Your task to perform on an android device: Clear the shopping cart on costco. Add jbl charge 4 to the cart on costco Image 0: 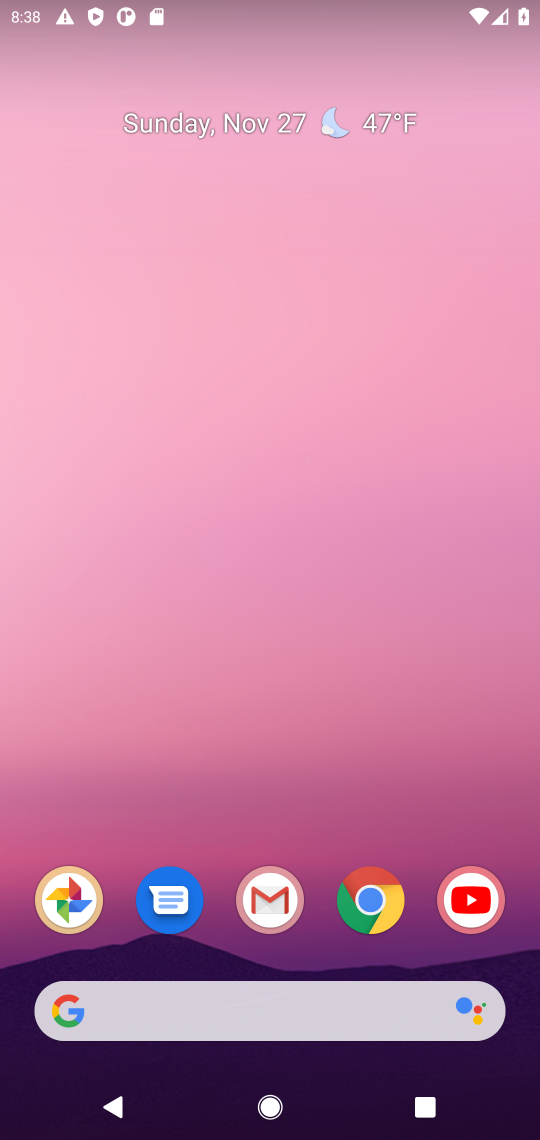
Step 0: click (373, 901)
Your task to perform on an android device: Clear the shopping cart on costco. Add jbl charge 4 to the cart on costco Image 1: 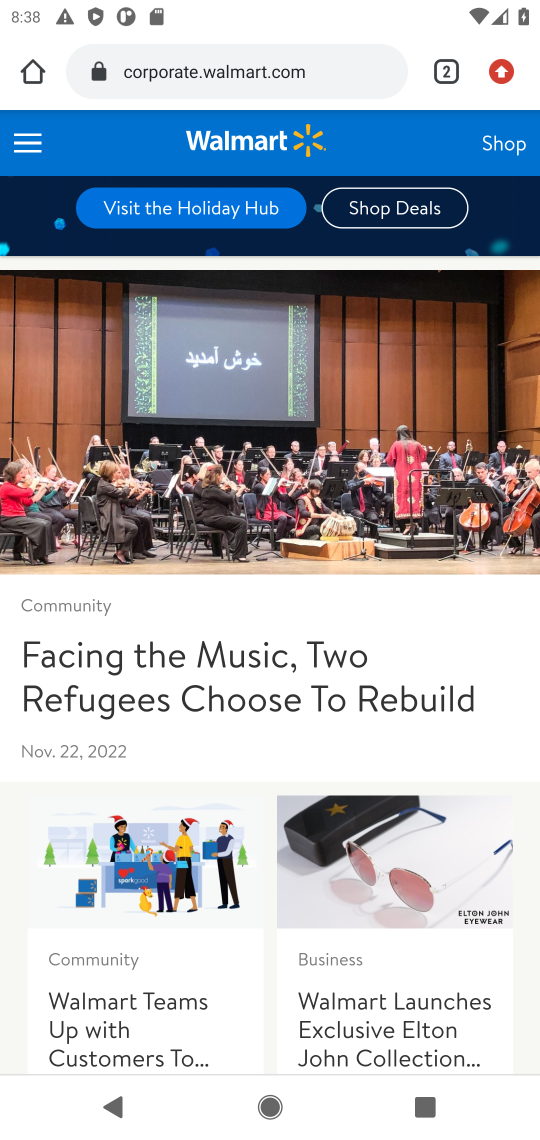
Step 1: click (198, 76)
Your task to perform on an android device: Clear the shopping cart on costco. Add jbl charge 4 to the cart on costco Image 2: 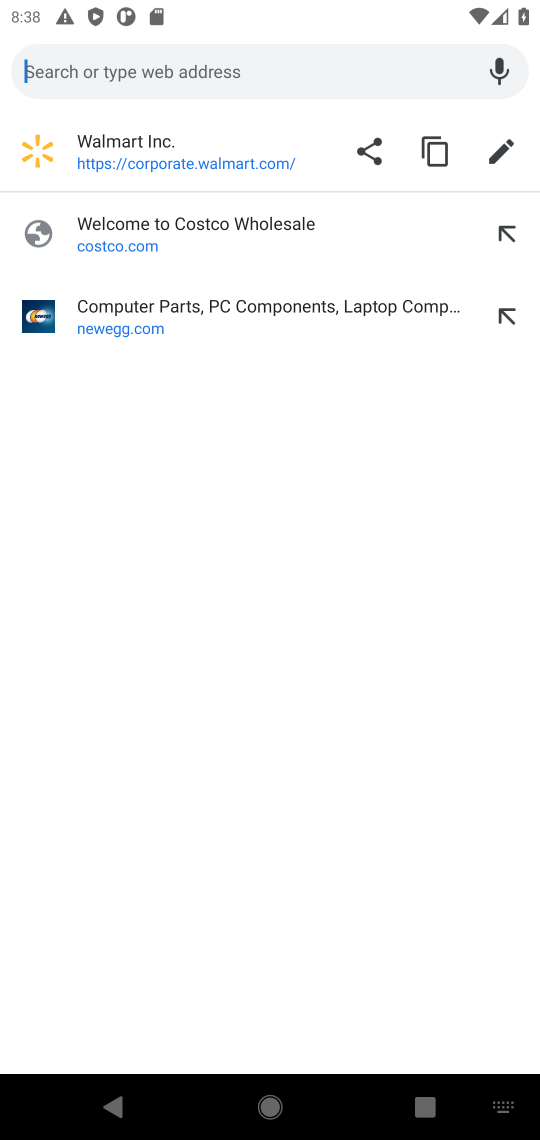
Step 2: click (119, 246)
Your task to perform on an android device: Clear the shopping cart on costco. Add jbl charge 4 to the cart on costco Image 3: 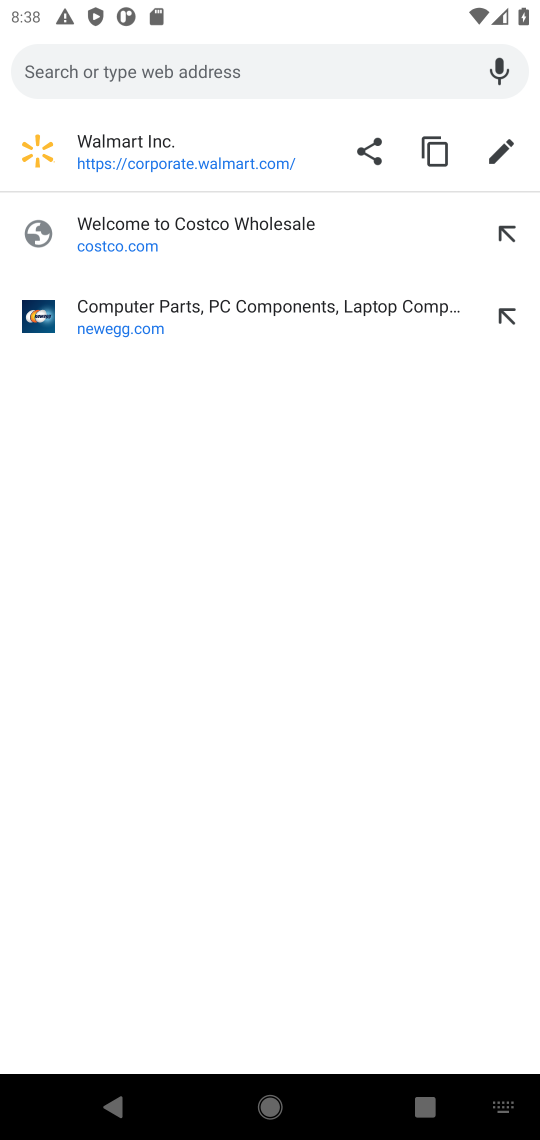
Step 3: click (119, 246)
Your task to perform on an android device: Clear the shopping cart on costco. Add jbl charge 4 to the cart on costco Image 4: 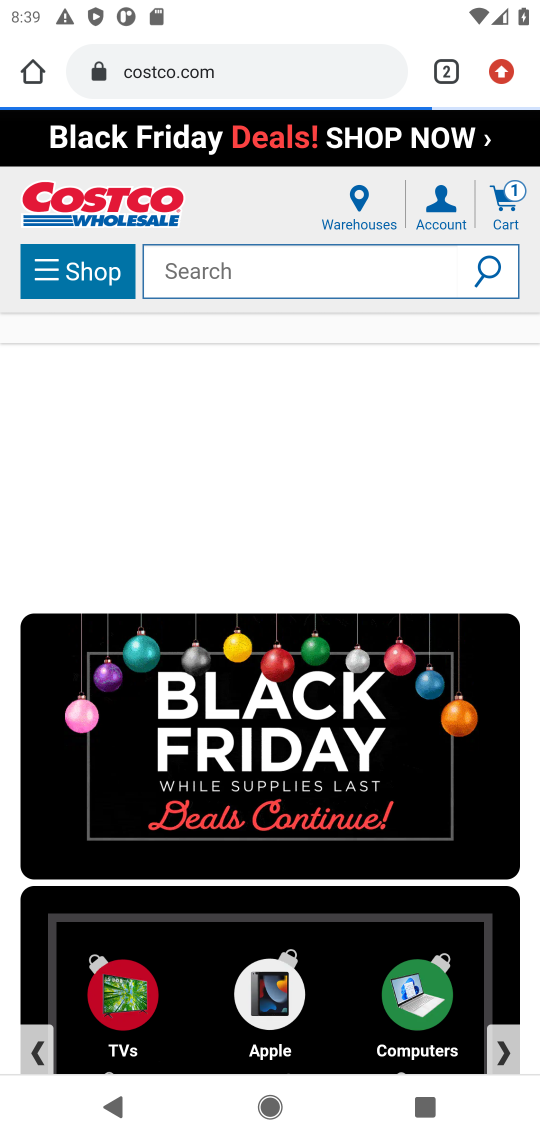
Step 4: click (494, 195)
Your task to perform on an android device: Clear the shopping cart on costco. Add jbl charge 4 to the cart on costco Image 5: 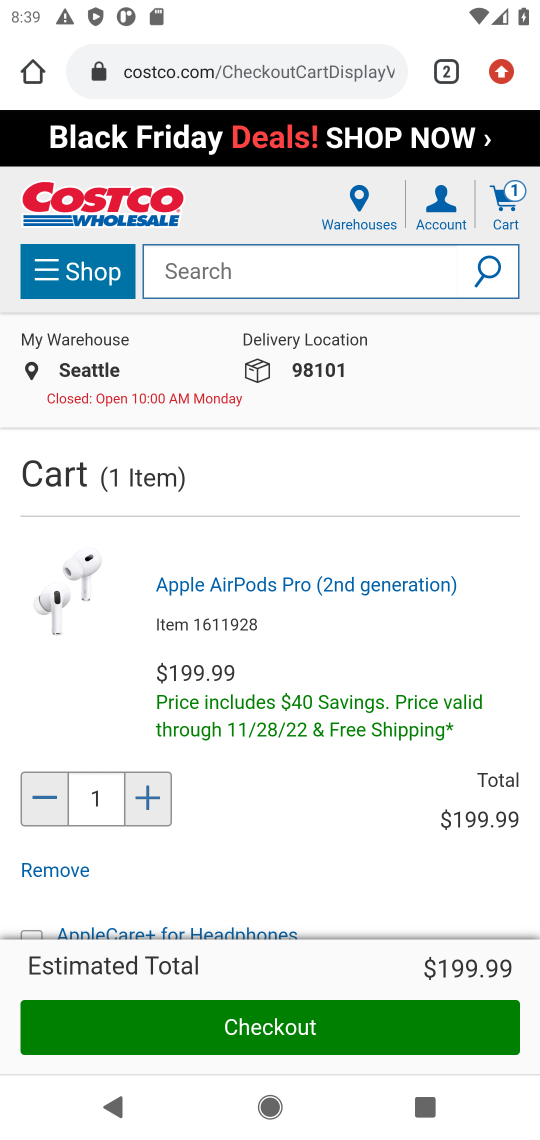
Step 5: drag from (294, 721) to (297, 376)
Your task to perform on an android device: Clear the shopping cart on costco. Add jbl charge 4 to the cart on costco Image 6: 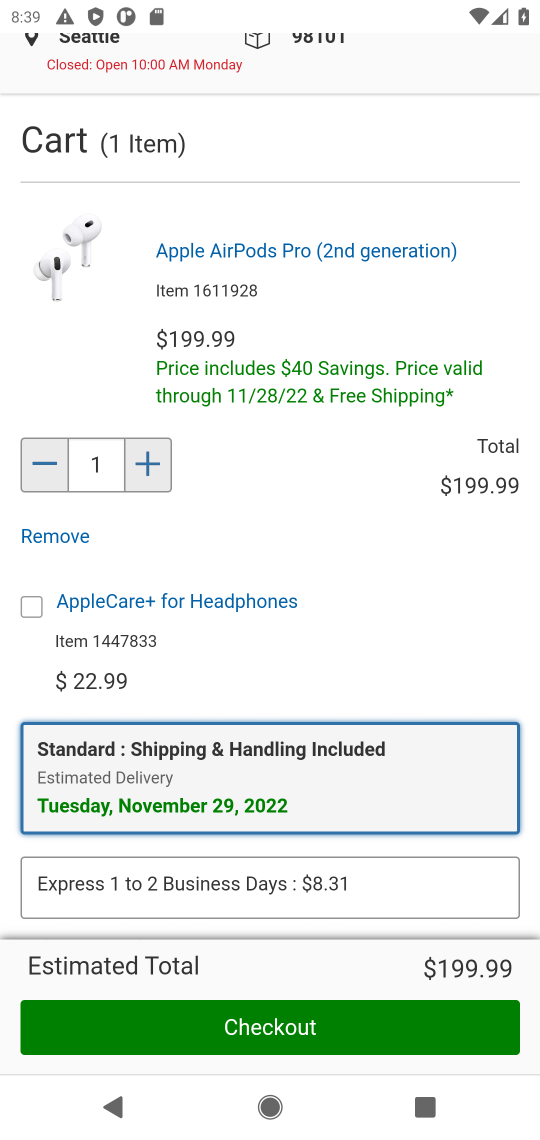
Step 6: drag from (330, 640) to (330, 418)
Your task to perform on an android device: Clear the shopping cart on costco. Add jbl charge 4 to the cart on costco Image 7: 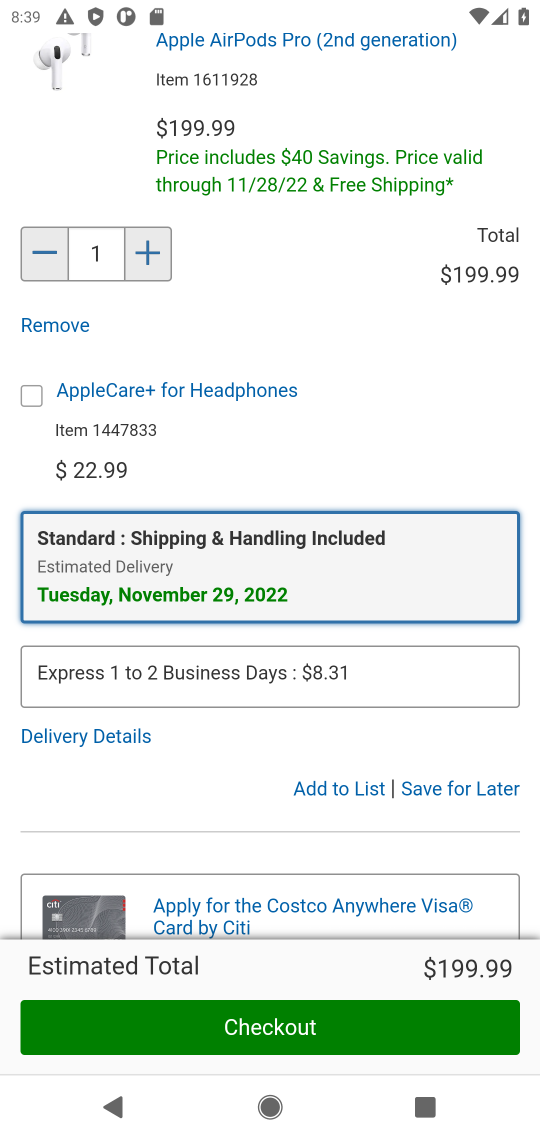
Step 7: click (468, 792)
Your task to perform on an android device: Clear the shopping cart on costco. Add jbl charge 4 to the cart on costco Image 8: 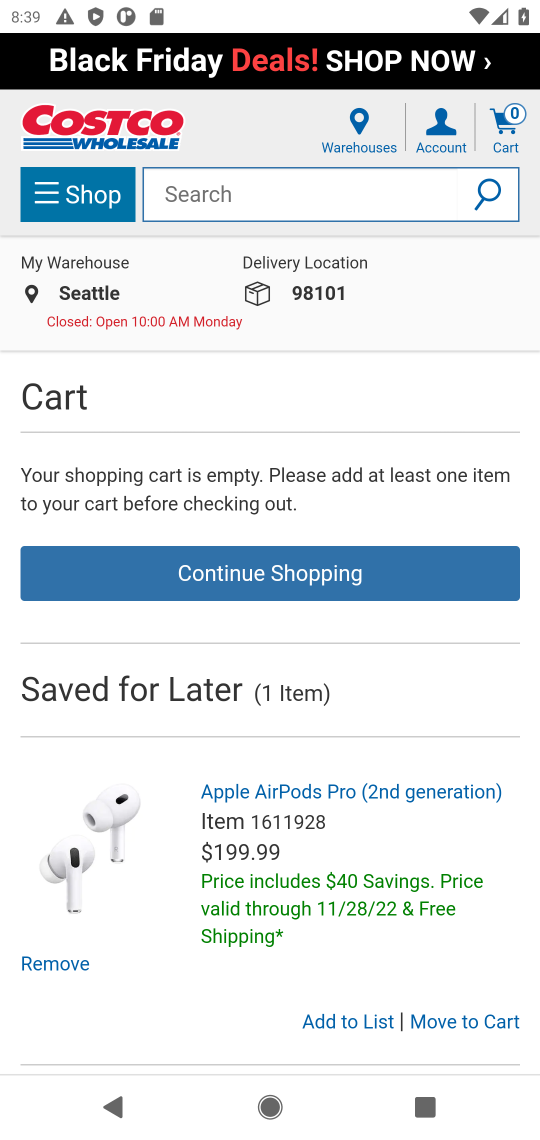
Step 8: drag from (349, 789) to (389, 500)
Your task to perform on an android device: Clear the shopping cart on costco. Add jbl charge 4 to the cart on costco Image 9: 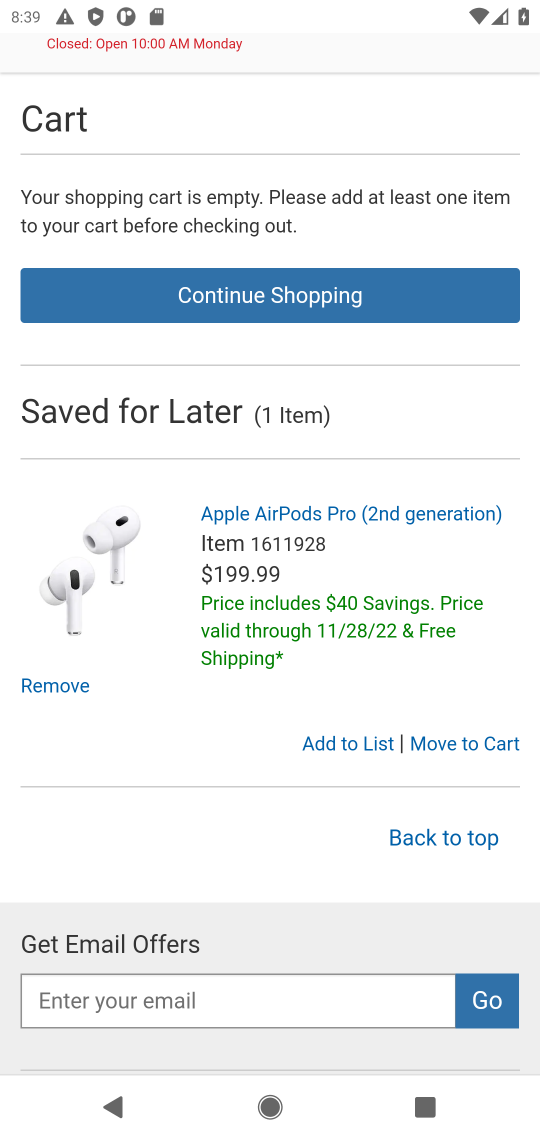
Step 9: drag from (264, 531) to (261, 624)
Your task to perform on an android device: Clear the shopping cart on costco. Add jbl charge 4 to the cart on costco Image 10: 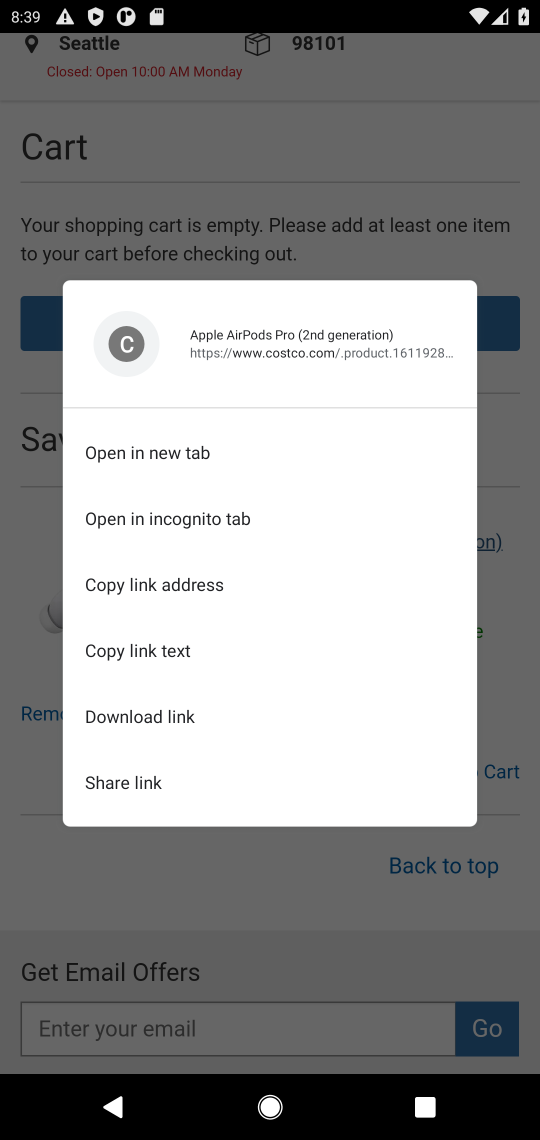
Step 10: click (30, 485)
Your task to perform on an android device: Clear the shopping cart on costco. Add jbl charge 4 to the cart on costco Image 11: 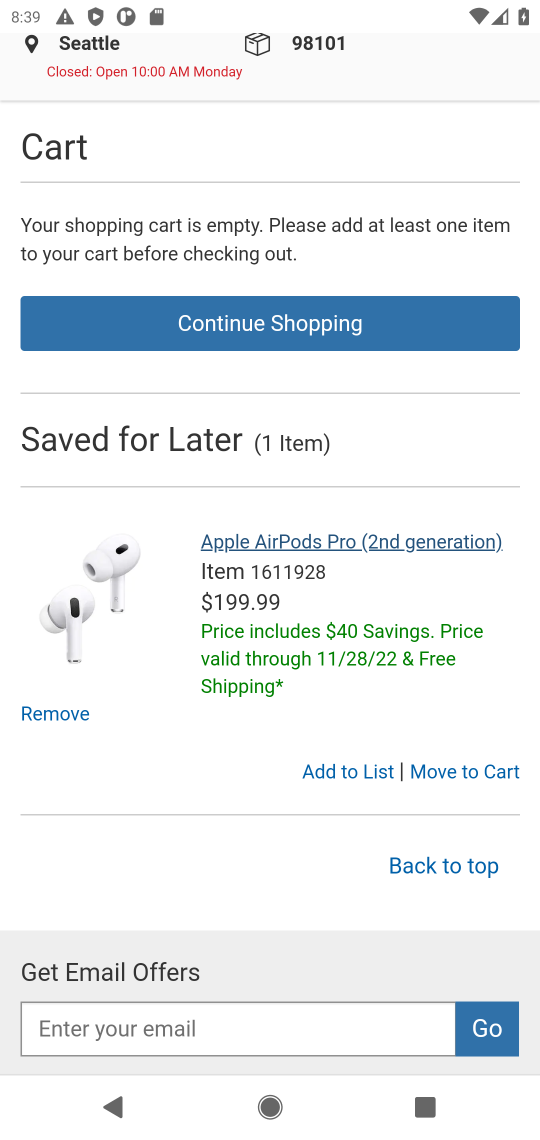
Step 11: drag from (433, 406) to (435, 838)
Your task to perform on an android device: Clear the shopping cart on costco. Add jbl charge 4 to the cart on costco Image 12: 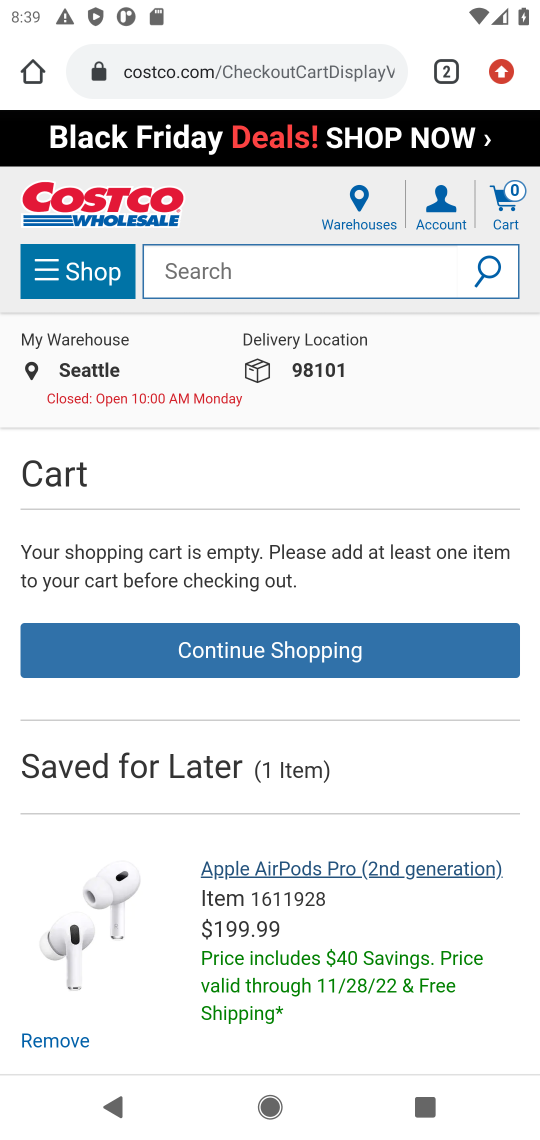
Step 12: click (199, 272)
Your task to perform on an android device: Clear the shopping cart on costco. Add jbl charge 4 to the cart on costco Image 13: 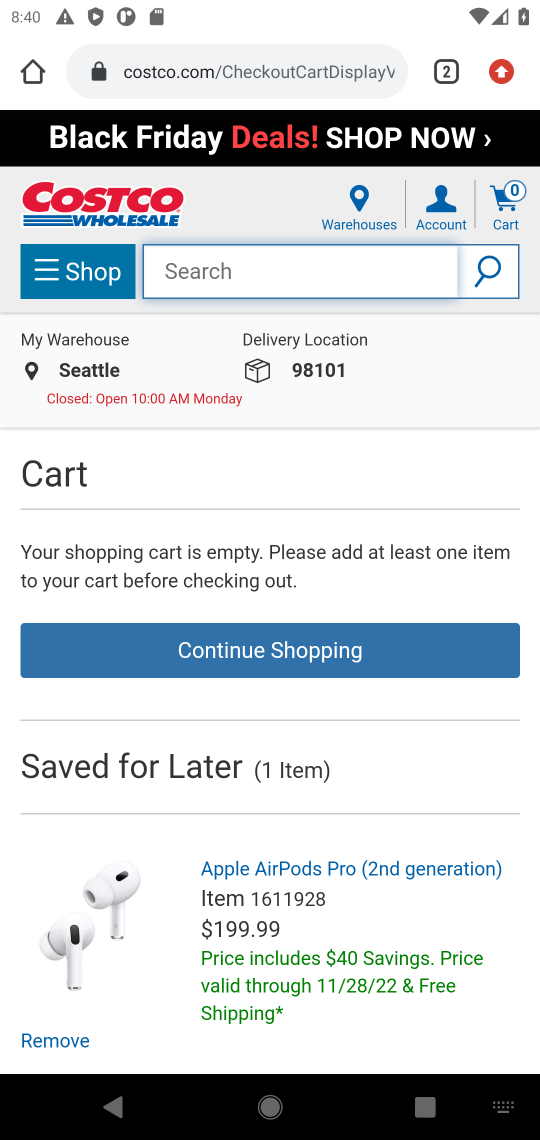
Step 13: type "jbl charge 4"
Your task to perform on an android device: Clear the shopping cart on costco. Add jbl charge 4 to the cart on costco Image 14: 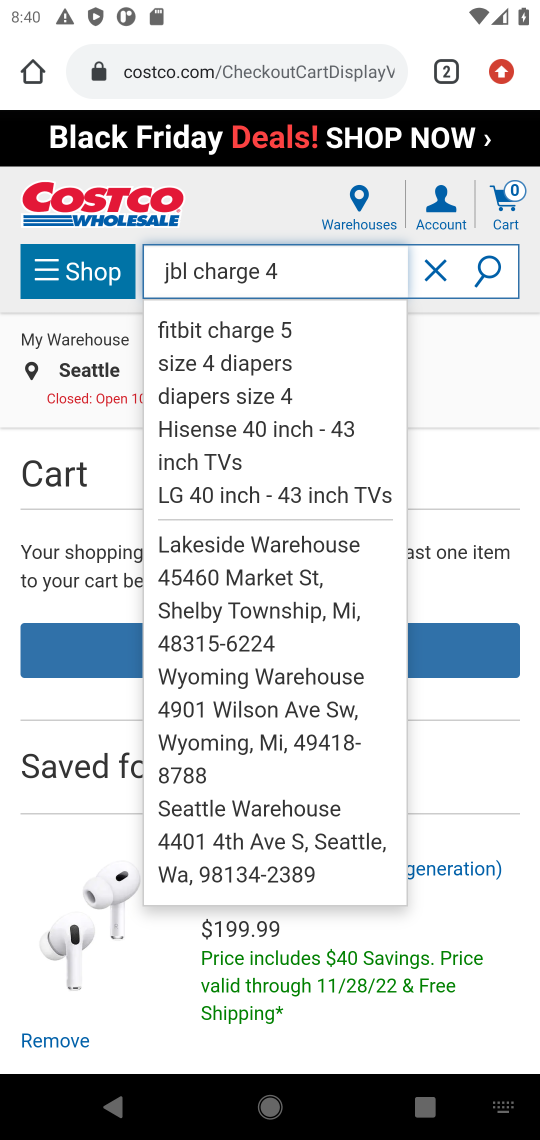
Step 14: click (484, 261)
Your task to perform on an android device: Clear the shopping cart on costco. Add jbl charge 4 to the cart on costco Image 15: 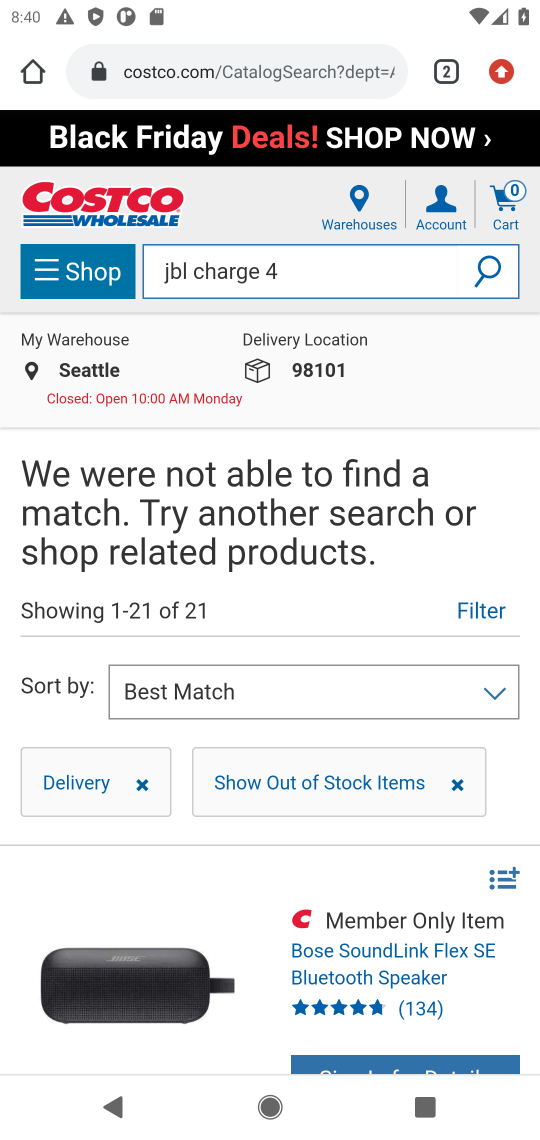
Step 15: task complete